Your task to perform on an android device: Open Chrome and go to settings Image 0: 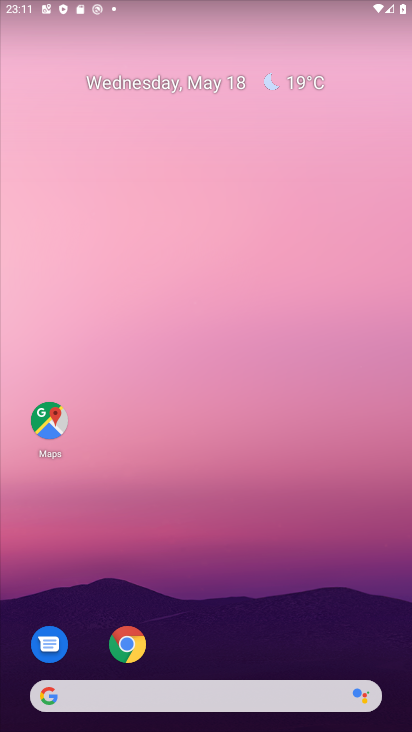
Step 0: click (275, 193)
Your task to perform on an android device: Open Chrome and go to settings Image 1: 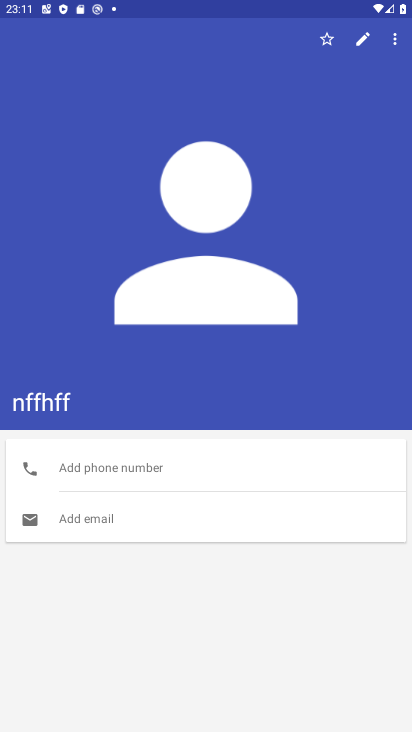
Step 1: press home button
Your task to perform on an android device: Open Chrome and go to settings Image 2: 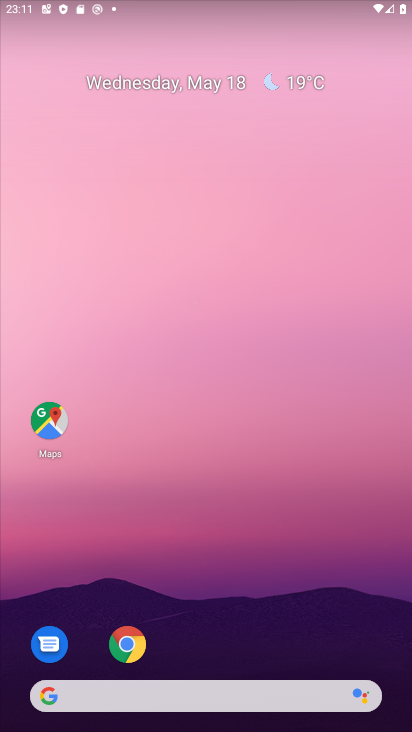
Step 2: drag from (351, 563) to (274, 129)
Your task to perform on an android device: Open Chrome and go to settings Image 3: 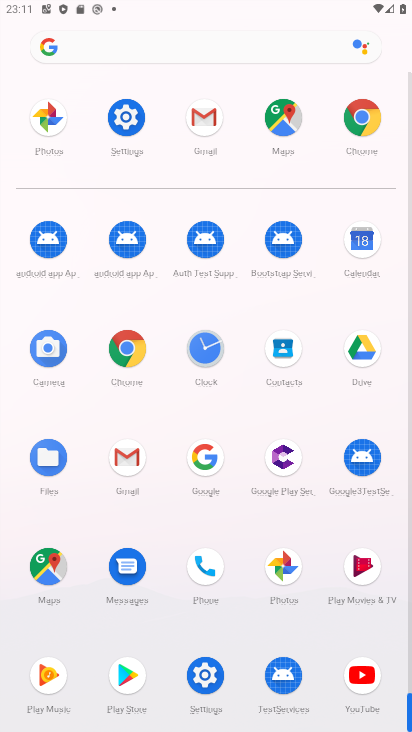
Step 3: click (122, 118)
Your task to perform on an android device: Open Chrome and go to settings Image 4: 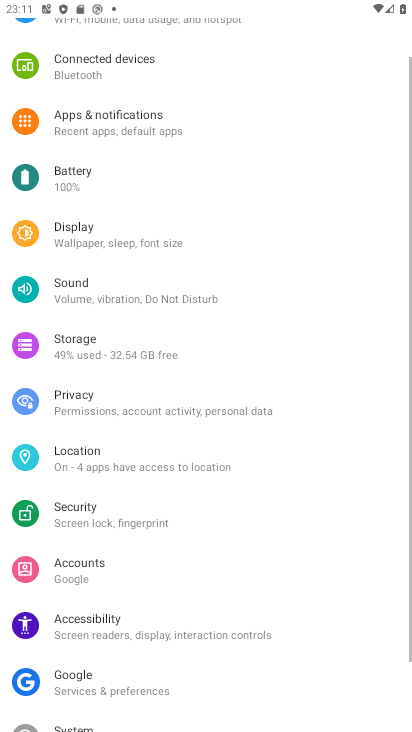
Step 4: drag from (178, 117) to (184, 441)
Your task to perform on an android device: Open Chrome and go to settings Image 5: 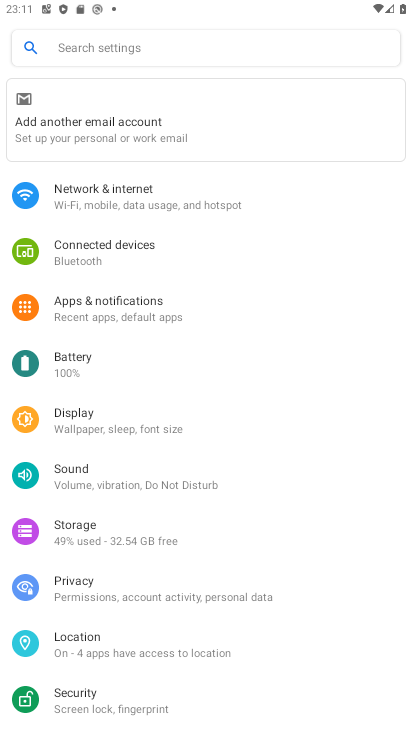
Step 5: click (120, 193)
Your task to perform on an android device: Open Chrome and go to settings Image 6: 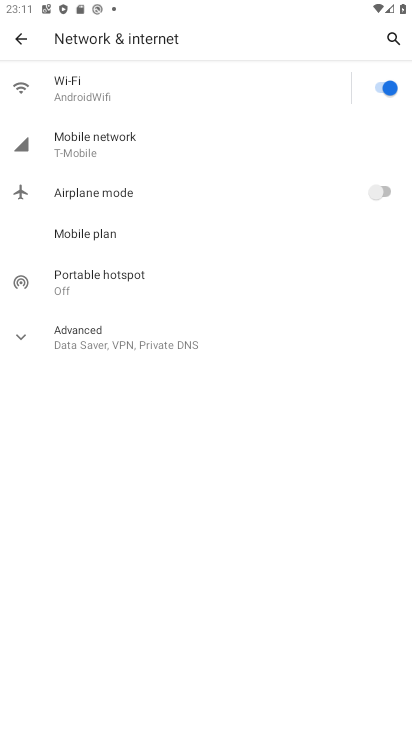
Step 6: press home button
Your task to perform on an android device: Open Chrome and go to settings Image 7: 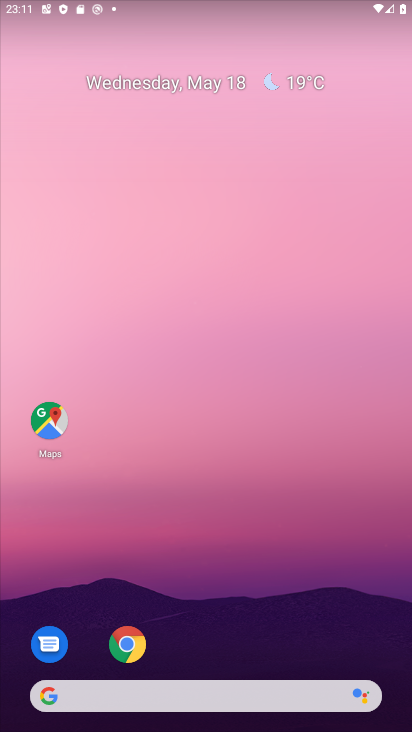
Step 7: click (131, 646)
Your task to perform on an android device: Open Chrome and go to settings Image 8: 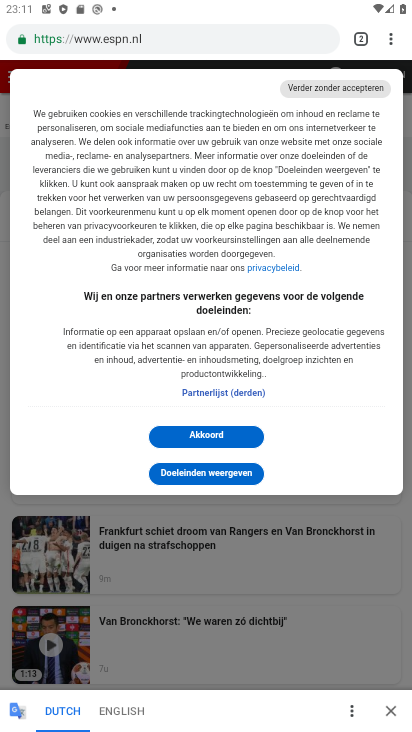
Step 8: task complete